Your task to perform on an android device: Go to privacy settings Image 0: 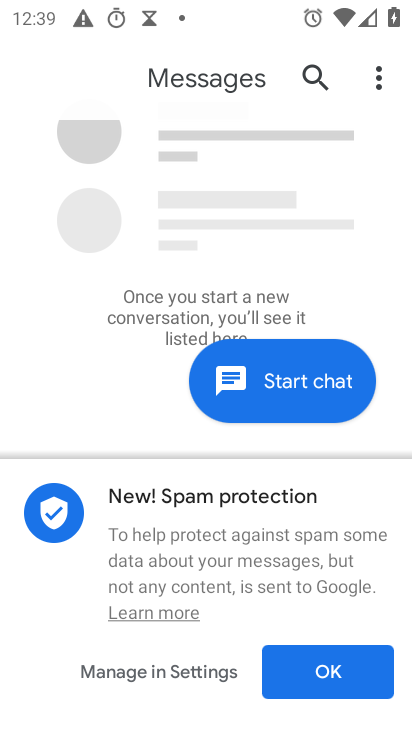
Step 0: press home button
Your task to perform on an android device: Go to privacy settings Image 1: 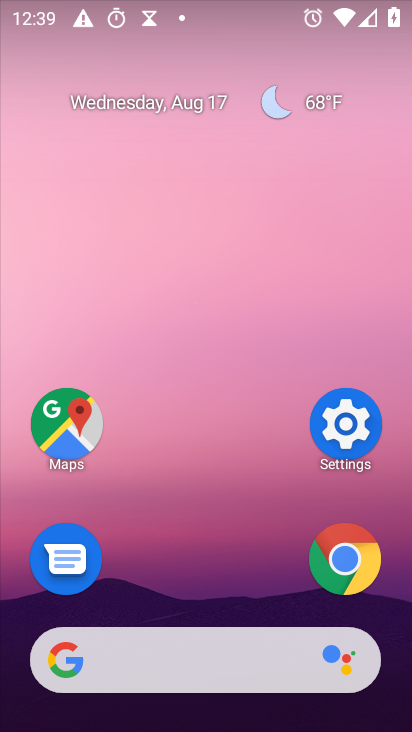
Step 1: click (355, 424)
Your task to perform on an android device: Go to privacy settings Image 2: 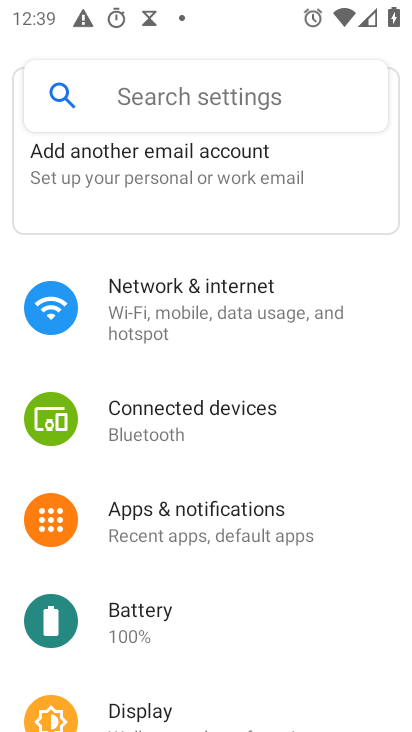
Step 2: drag from (287, 595) to (379, 119)
Your task to perform on an android device: Go to privacy settings Image 3: 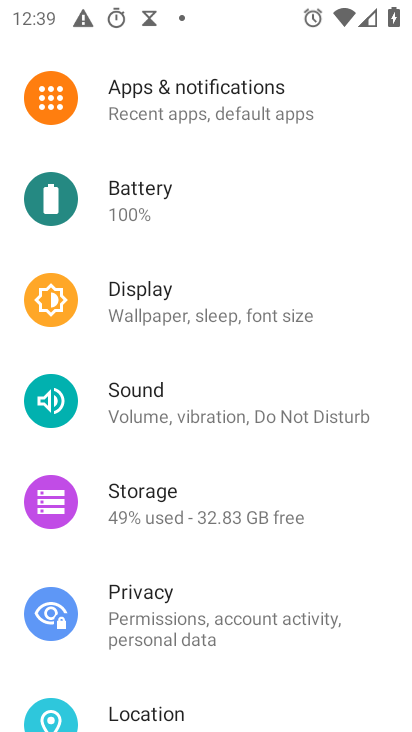
Step 3: click (179, 606)
Your task to perform on an android device: Go to privacy settings Image 4: 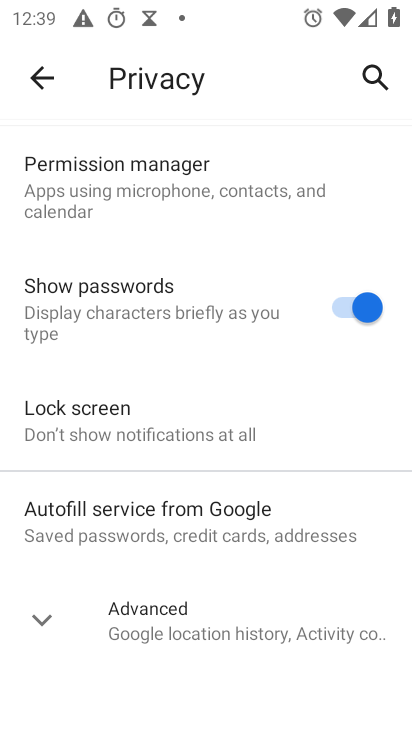
Step 4: task complete